Your task to perform on an android device: Search for sushi restaurants on Maps Image 0: 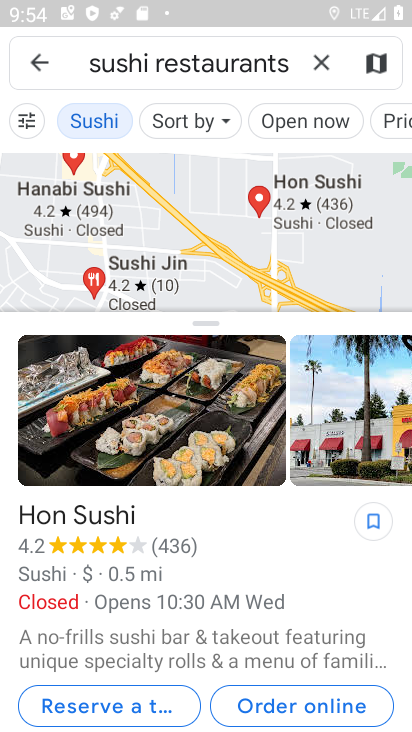
Step 0: press home button
Your task to perform on an android device: Search for sushi restaurants on Maps Image 1: 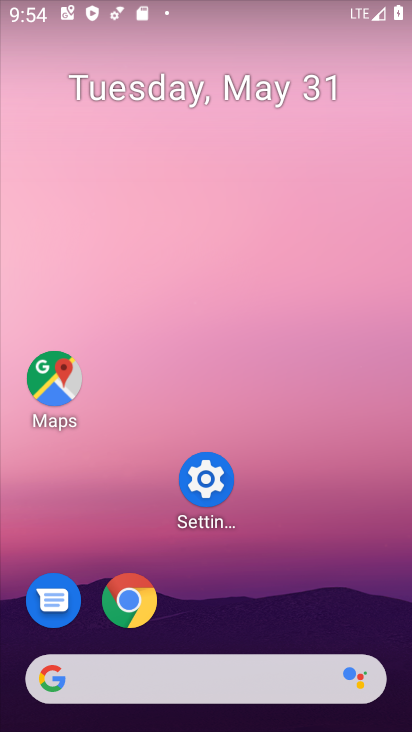
Step 1: click (67, 389)
Your task to perform on an android device: Search for sushi restaurants on Maps Image 2: 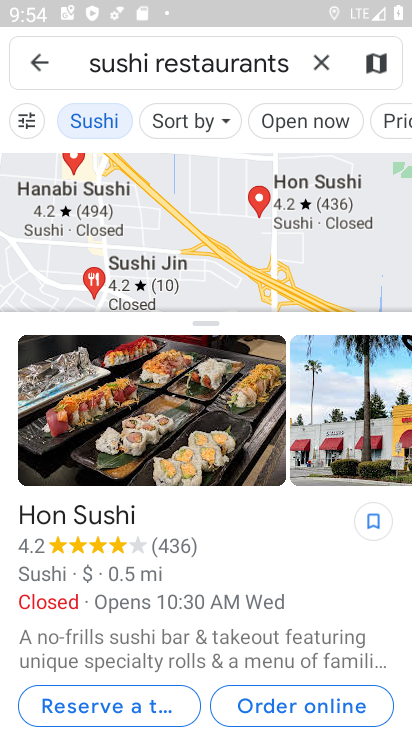
Step 2: task complete